Your task to perform on an android device: stop showing notifications on the lock screen Image 0: 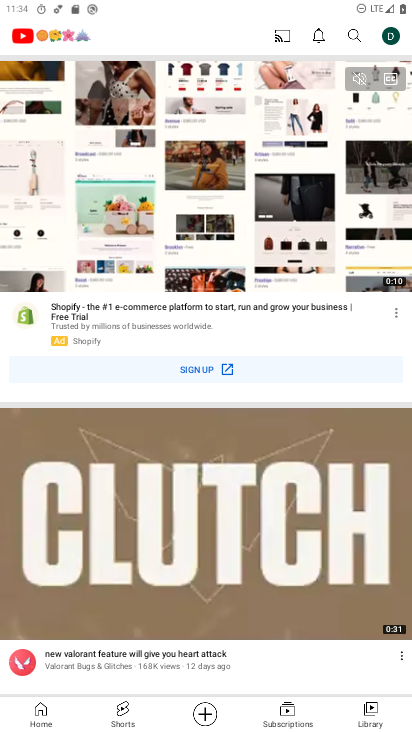
Step 0: press home button
Your task to perform on an android device: stop showing notifications on the lock screen Image 1: 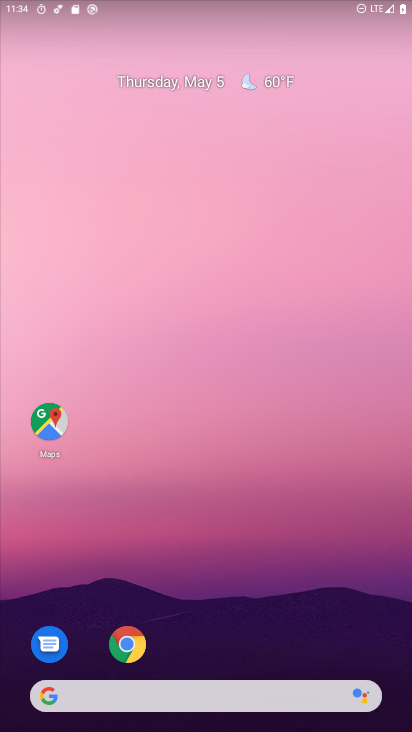
Step 1: drag from (359, 627) to (352, 233)
Your task to perform on an android device: stop showing notifications on the lock screen Image 2: 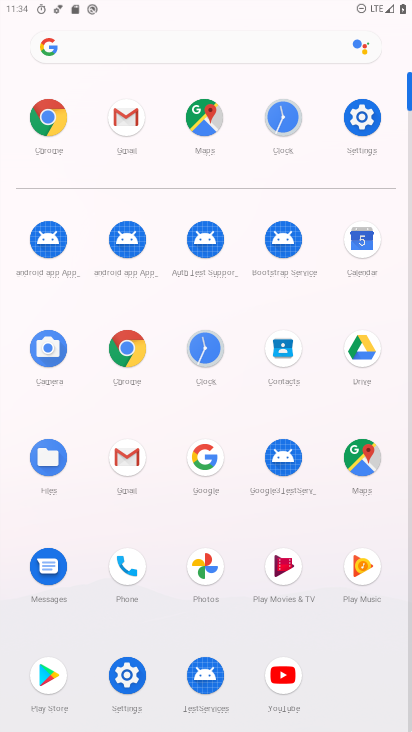
Step 2: click (357, 117)
Your task to perform on an android device: stop showing notifications on the lock screen Image 3: 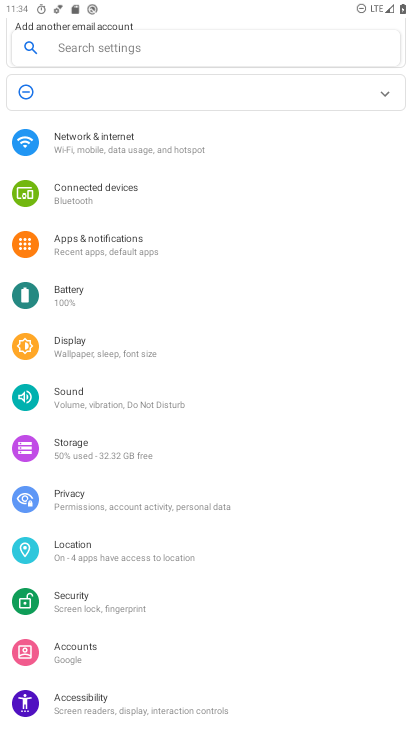
Step 3: click (133, 250)
Your task to perform on an android device: stop showing notifications on the lock screen Image 4: 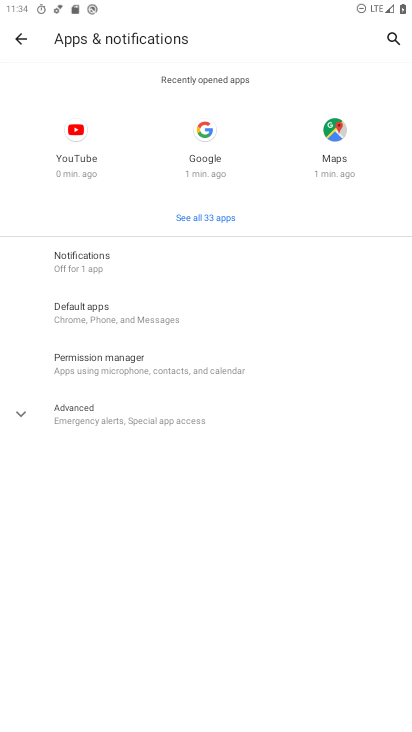
Step 4: click (143, 259)
Your task to perform on an android device: stop showing notifications on the lock screen Image 5: 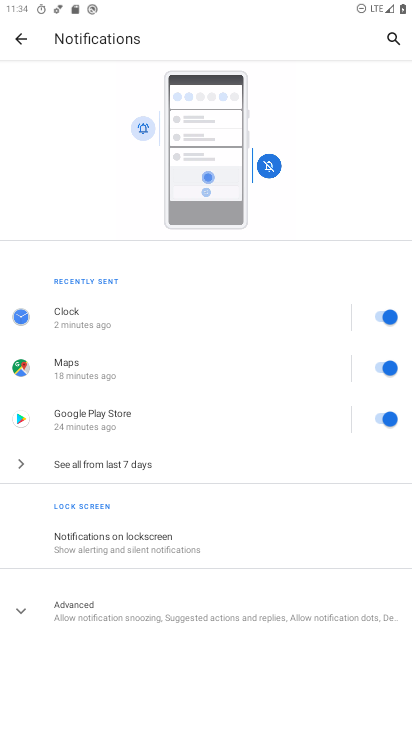
Step 5: click (139, 550)
Your task to perform on an android device: stop showing notifications on the lock screen Image 6: 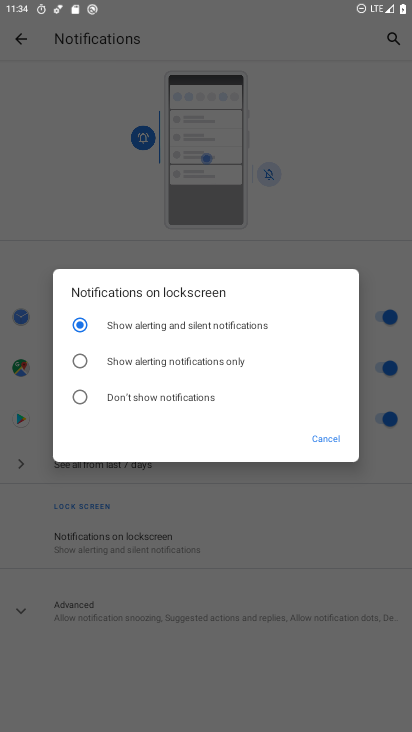
Step 6: click (112, 399)
Your task to perform on an android device: stop showing notifications on the lock screen Image 7: 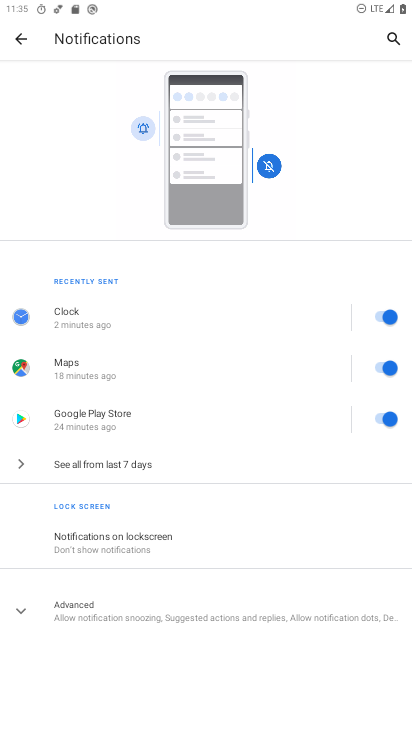
Step 7: task complete